Your task to perform on an android device: Open calendar and show me the third week of next month Image 0: 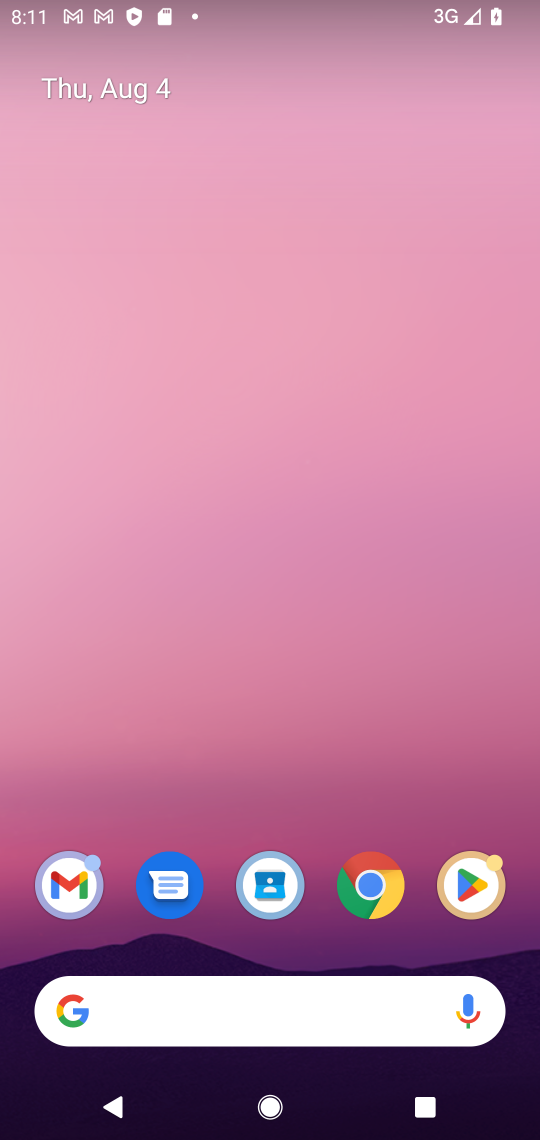
Step 0: press home button
Your task to perform on an android device: Open calendar and show me the third week of next month Image 1: 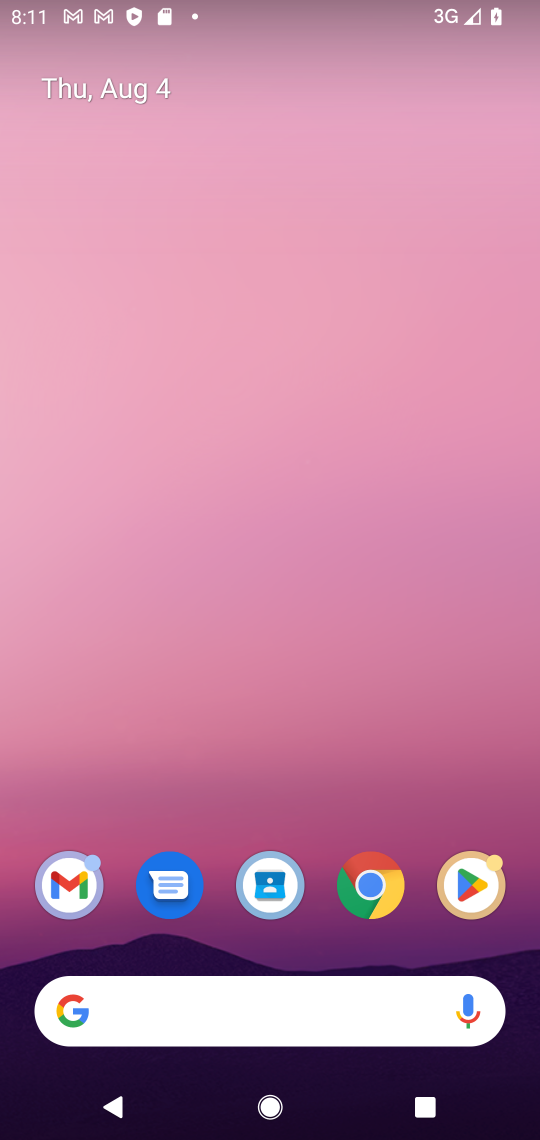
Step 1: drag from (354, 972) to (203, 138)
Your task to perform on an android device: Open calendar and show me the third week of next month Image 2: 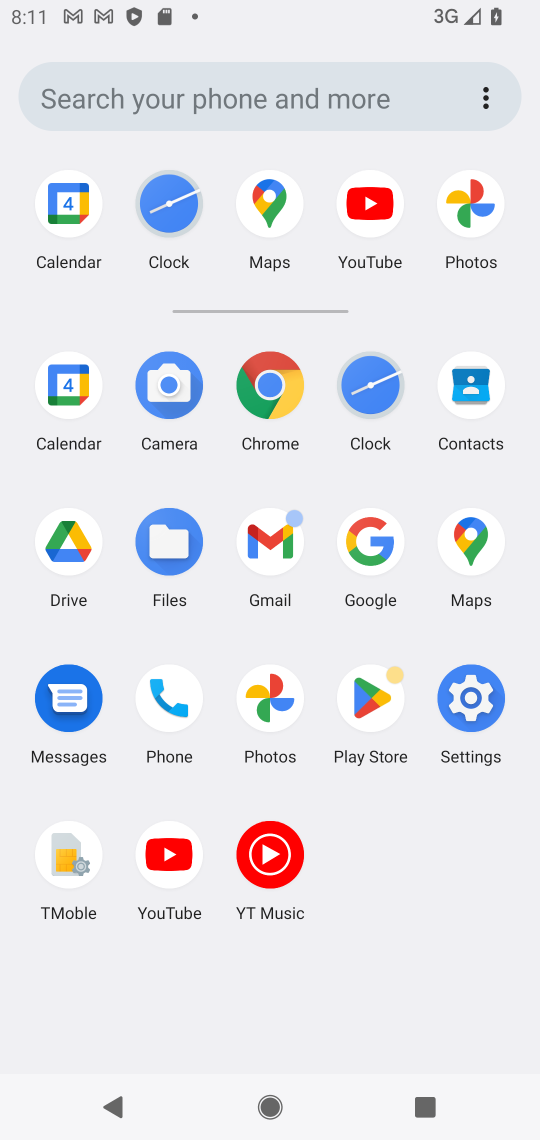
Step 2: click (49, 406)
Your task to perform on an android device: Open calendar and show me the third week of next month Image 3: 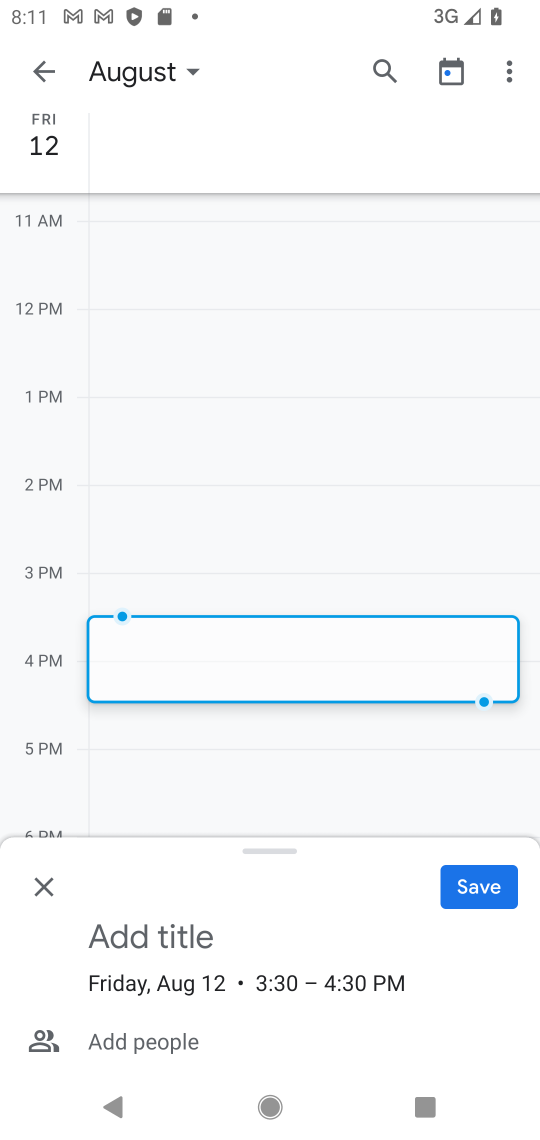
Step 3: click (200, 75)
Your task to perform on an android device: Open calendar and show me the third week of next month Image 4: 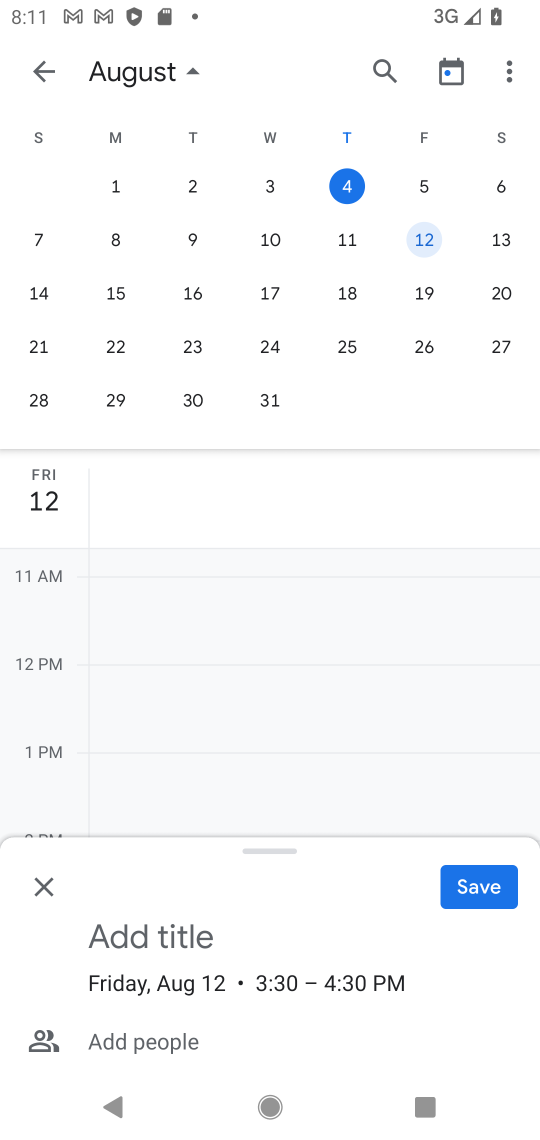
Step 4: drag from (470, 310) to (26, 288)
Your task to perform on an android device: Open calendar and show me the third week of next month Image 5: 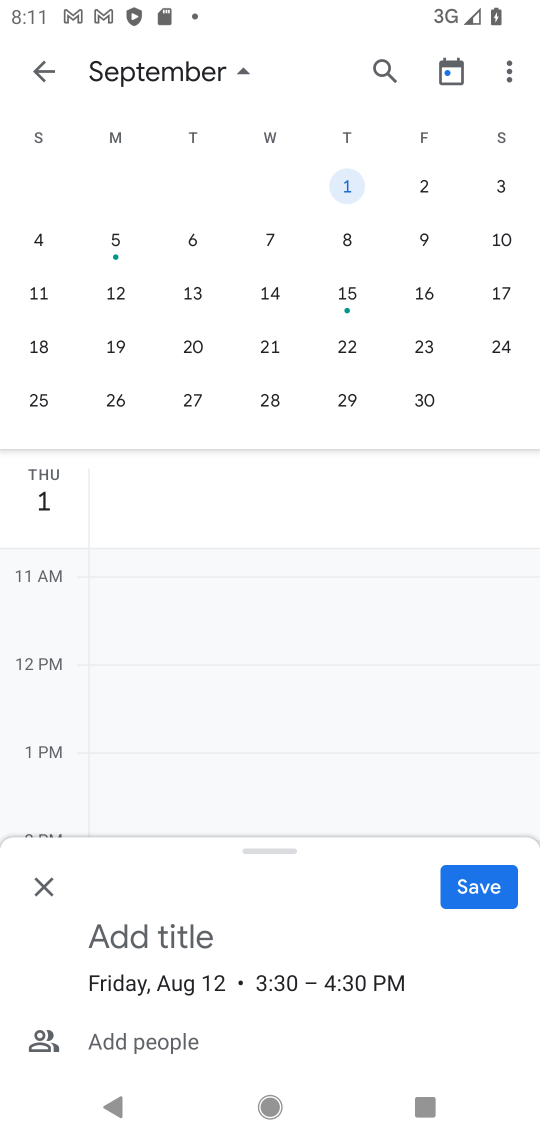
Step 5: click (347, 302)
Your task to perform on an android device: Open calendar and show me the third week of next month Image 6: 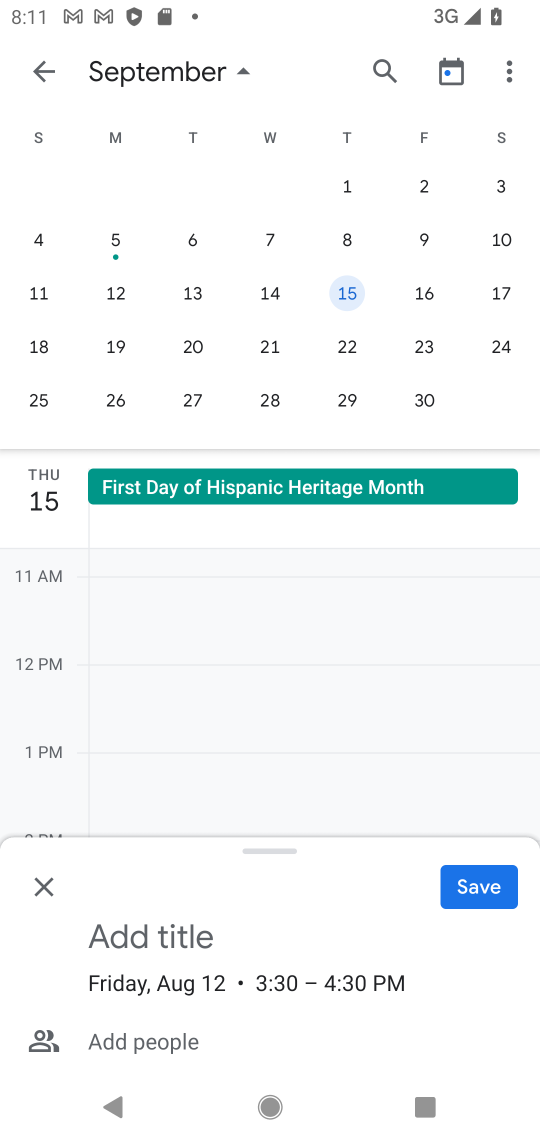
Step 6: task complete